Your task to perform on an android device: Search for vegetarian restaurants on Maps Image 0: 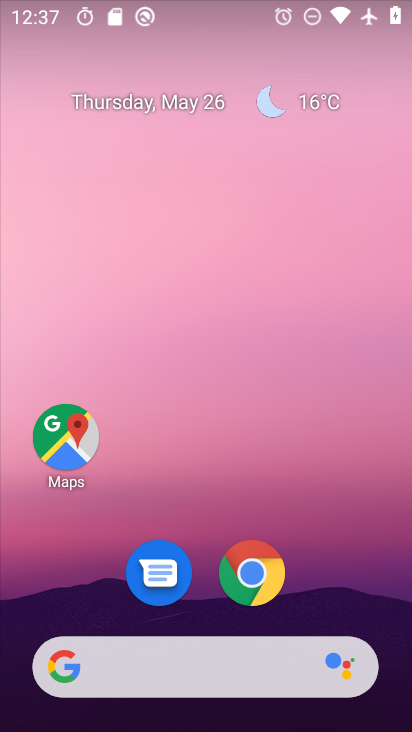
Step 0: click (66, 446)
Your task to perform on an android device: Search for vegetarian restaurants on Maps Image 1: 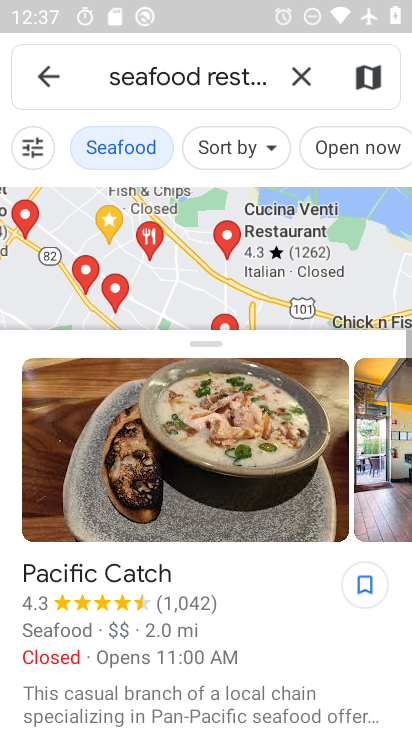
Step 1: click (297, 78)
Your task to perform on an android device: Search for vegetarian restaurants on Maps Image 2: 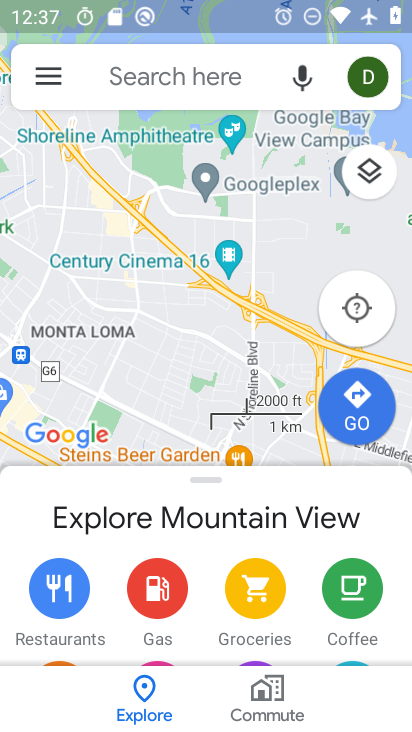
Step 2: click (117, 72)
Your task to perform on an android device: Search for vegetarian restaurants on Maps Image 3: 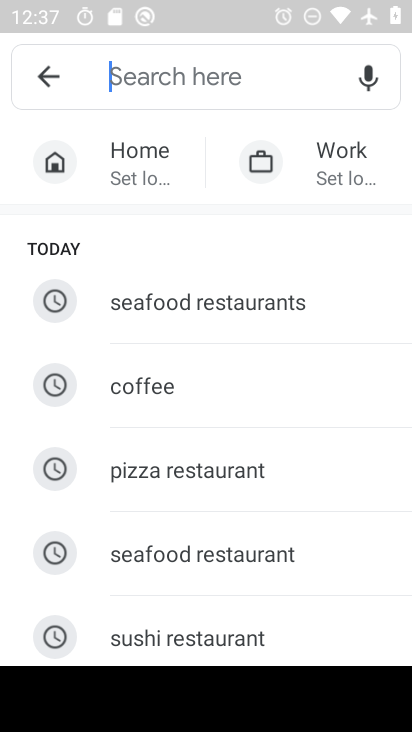
Step 3: type "vegetarian restaurants"
Your task to perform on an android device: Search for vegetarian restaurants on Maps Image 4: 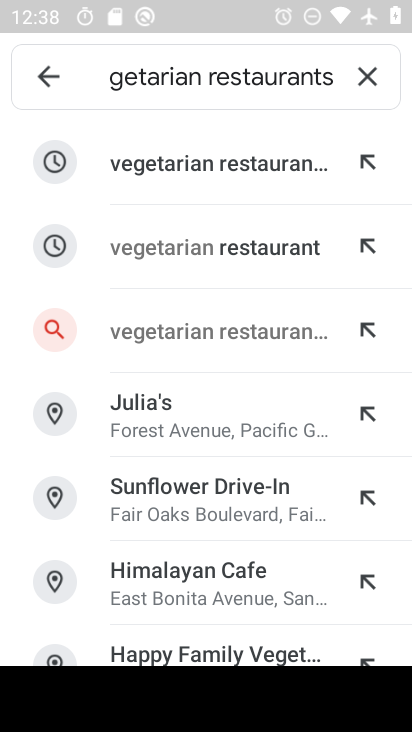
Step 4: click (200, 174)
Your task to perform on an android device: Search for vegetarian restaurants on Maps Image 5: 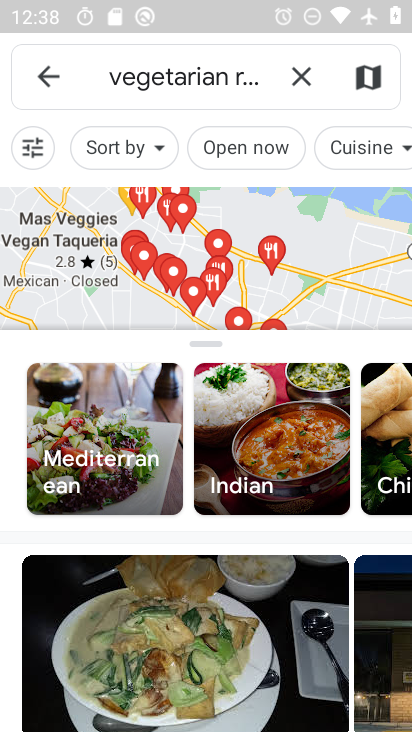
Step 5: task complete